Your task to perform on an android device: change notifications settings Image 0: 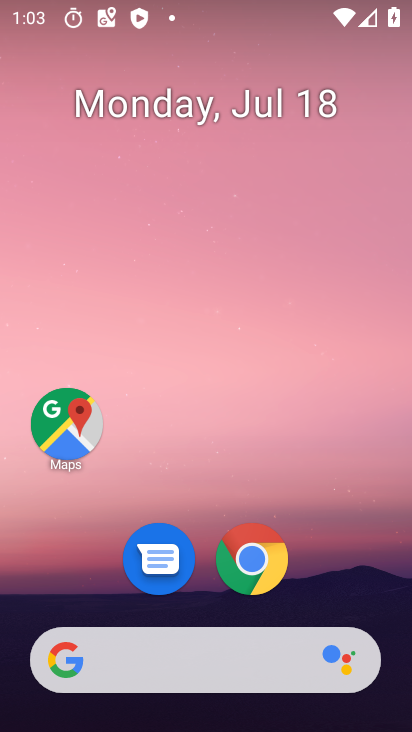
Step 0: drag from (187, 579) to (220, 42)
Your task to perform on an android device: change notifications settings Image 1: 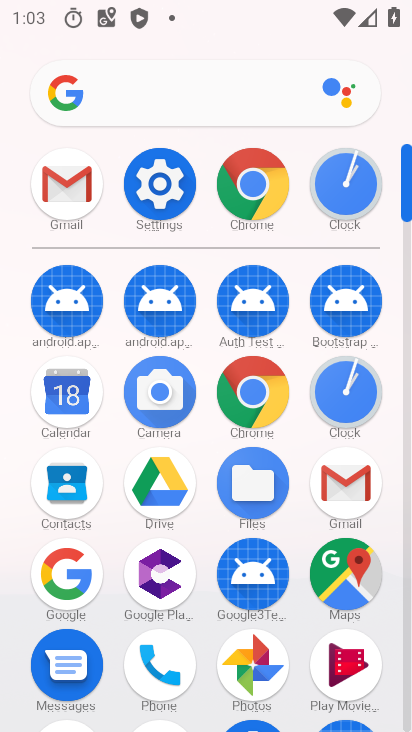
Step 1: click (334, 369)
Your task to perform on an android device: change notifications settings Image 2: 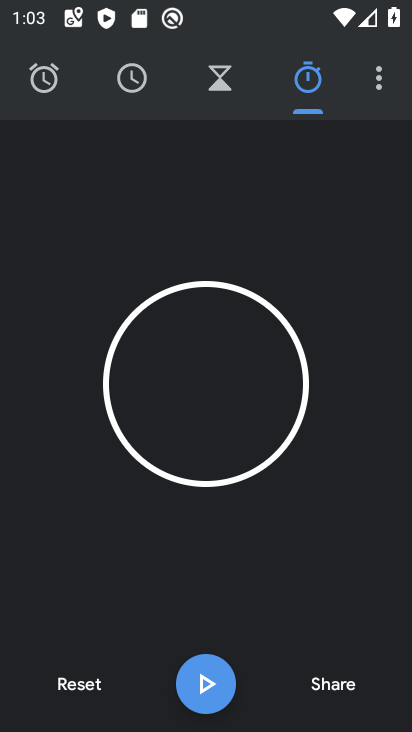
Step 2: press back button
Your task to perform on an android device: change notifications settings Image 3: 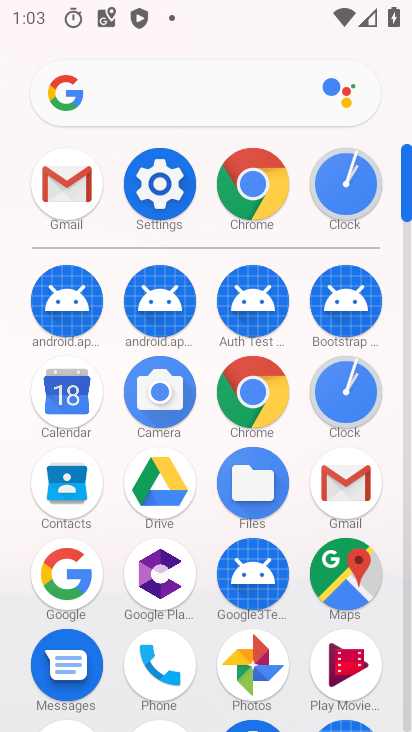
Step 3: click (150, 185)
Your task to perform on an android device: change notifications settings Image 4: 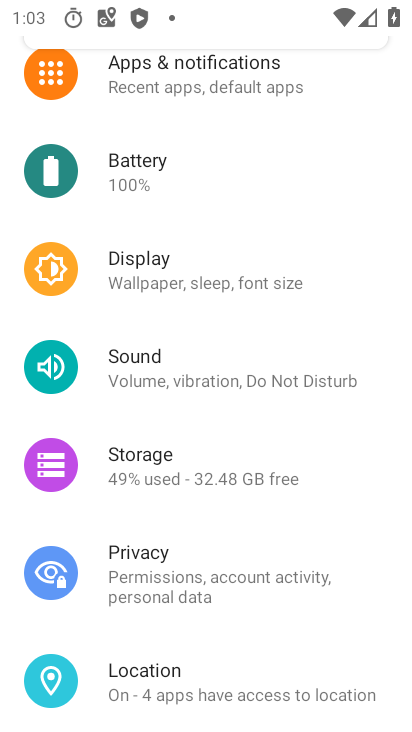
Step 4: click (198, 83)
Your task to perform on an android device: change notifications settings Image 5: 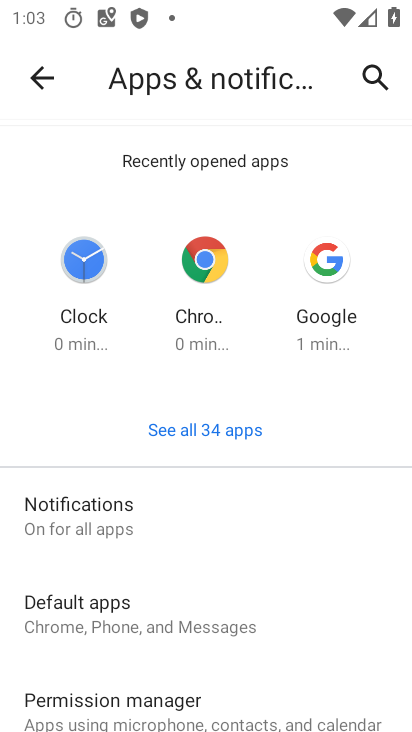
Step 5: click (124, 512)
Your task to perform on an android device: change notifications settings Image 6: 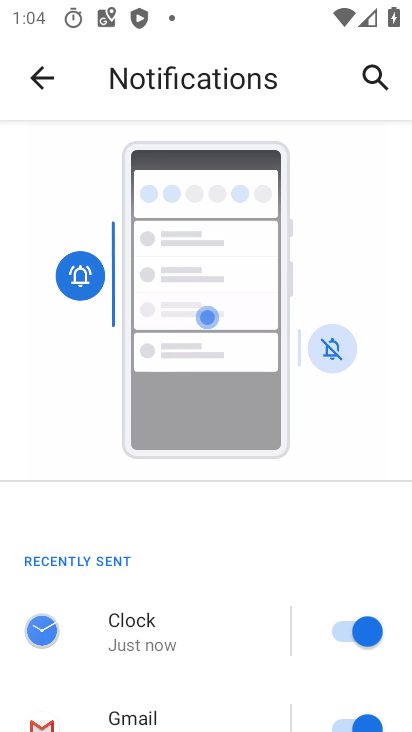
Step 6: drag from (154, 663) to (257, 76)
Your task to perform on an android device: change notifications settings Image 7: 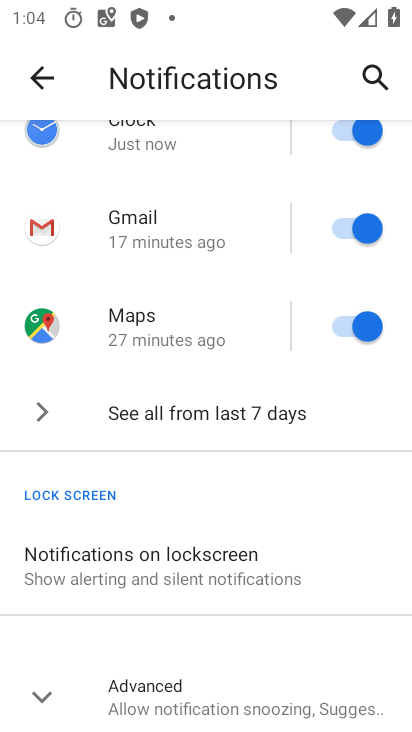
Step 7: click (156, 681)
Your task to perform on an android device: change notifications settings Image 8: 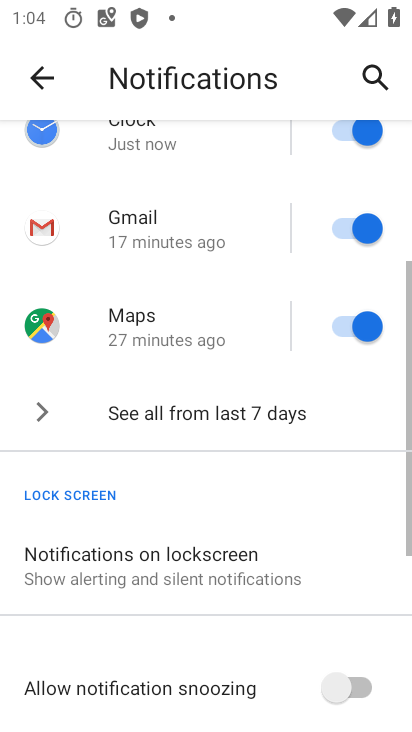
Step 8: click (337, 685)
Your task to perform on an android device: change notifications settings Image 9: 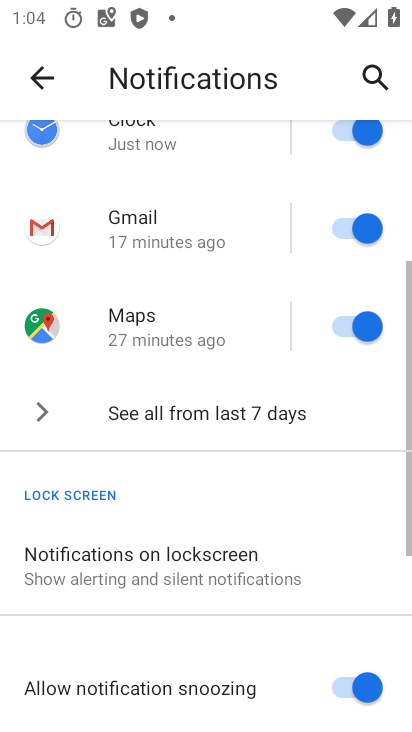
Step 9: task complete